Your task to perform on an android device: open sync settings in chrome Image 0: 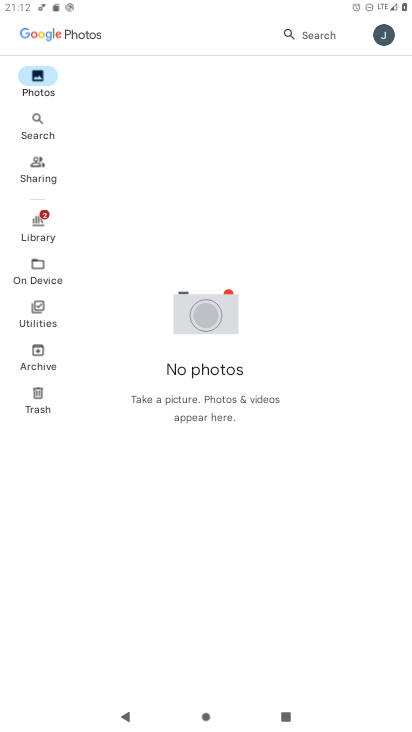
Step 0: press home button
Your task to perform on an android device: open sync settings in chrome Image 1: 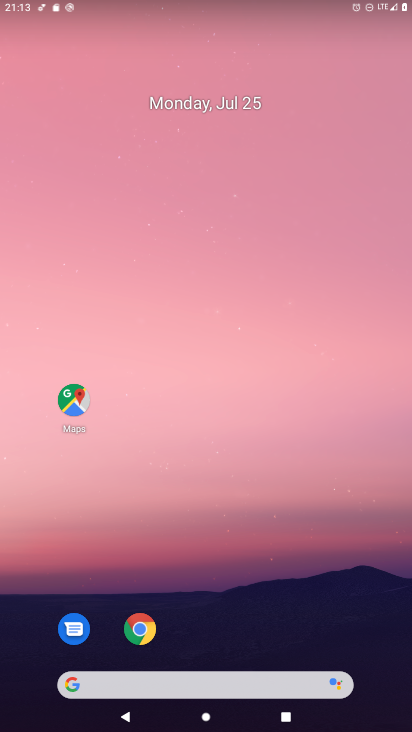
Step 1: click (141, 627)
Your task to perform on an android device: open sync settings in chrome Image 2: 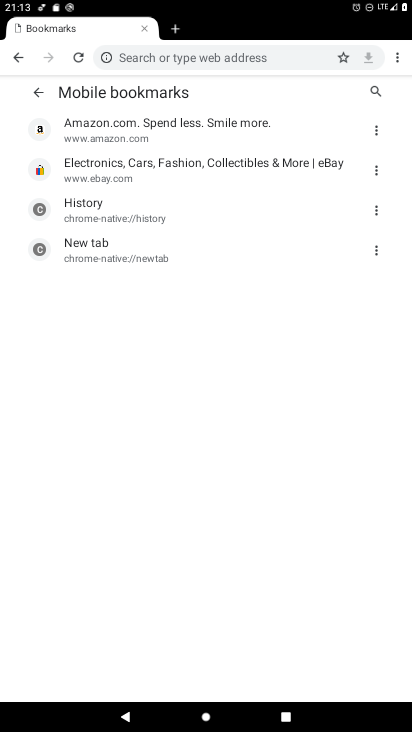
Step 2: click (398, 55)
Your task to perform on an android device: open sync settings in chrome Image 3: 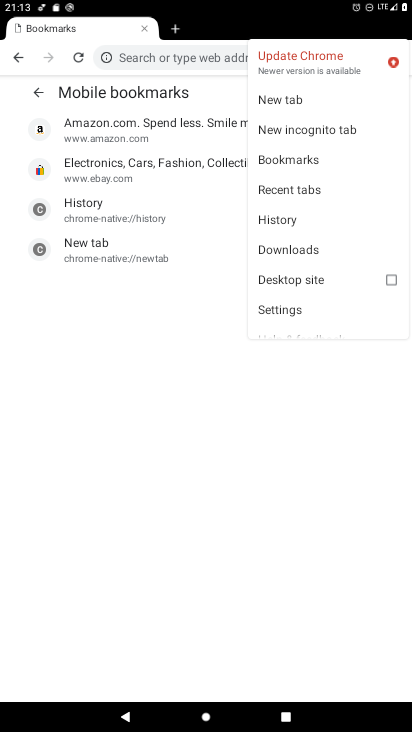
Step 3: click (280, 308)
Your task to perform on an android device: open sync settings in chrome Image 4: 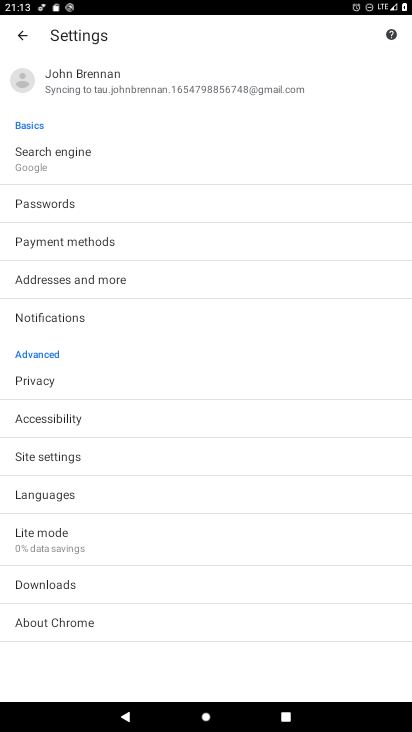
Step 4: click (65, 457)
Your task to perform on an android device: open sync settings in chrome Image 5: 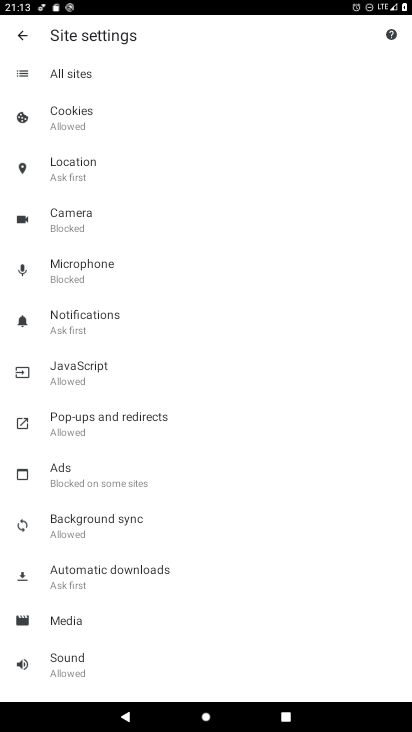
Step 5: click (76, 524)
Your task to perform on an android device: open sync settings in chrome Image 6: 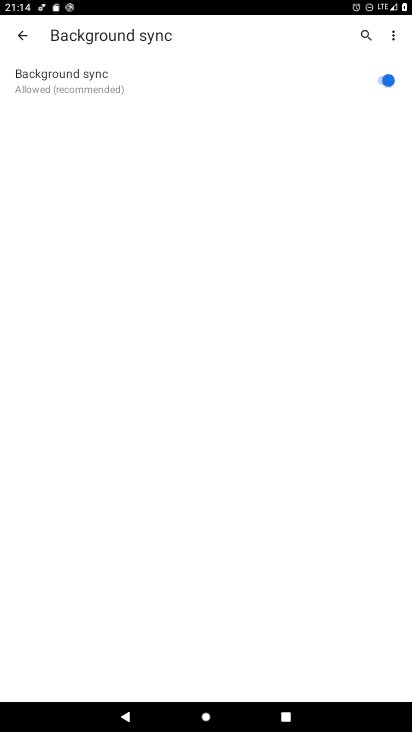
Step 6: task complete